Your task to perform on an android device: open app "Facebook Lite" (install if not already installed) and go to login screen Image 0: 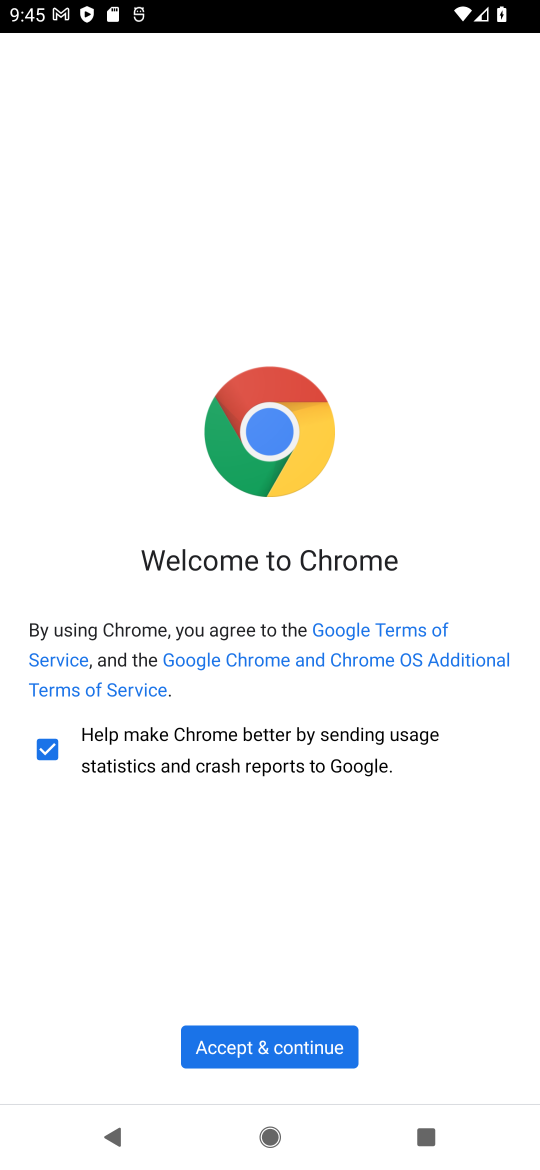
Step 0: press home button
Your task to perform on an android device: open app "Facebook Lite" (install if not already installed) and go to login screen Image 1: 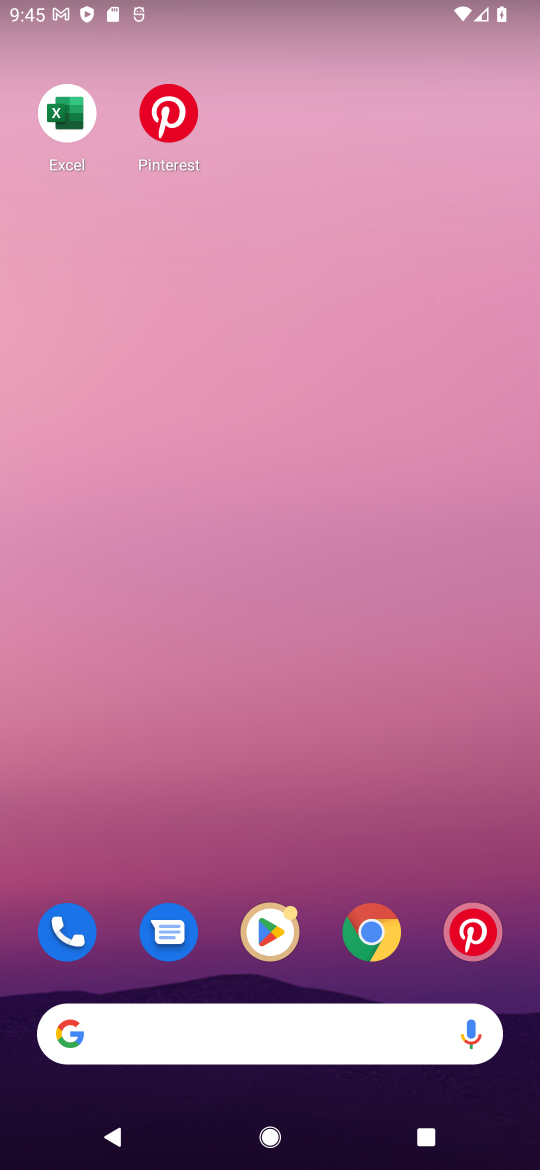
Step 1: click (272, 930)
Your task to perform on an android device: open app "Facebook Lite" (install if not already installed) and go to login screen Image 2: 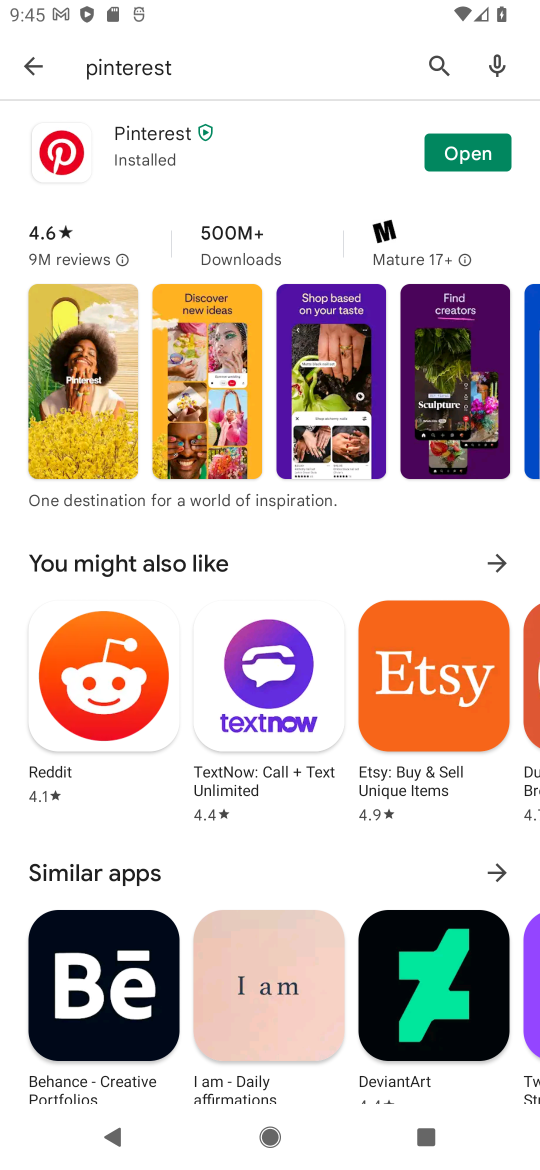
Step 2: click (429, 61)
Your task to perform on an android device: open app "Facebook Lite" (install if not already installed) and go to login screen Image 3: 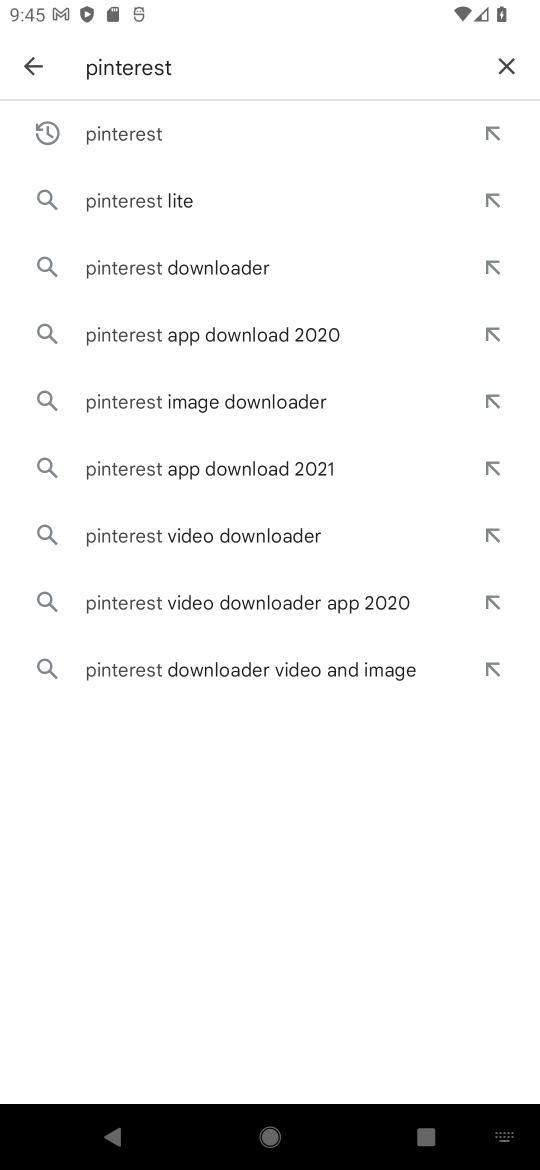
Step 3: click (508, 61)
Your task to perform on an android device: open app "Facebook Lite" (install if not already installed) and go to login screen Image 4: 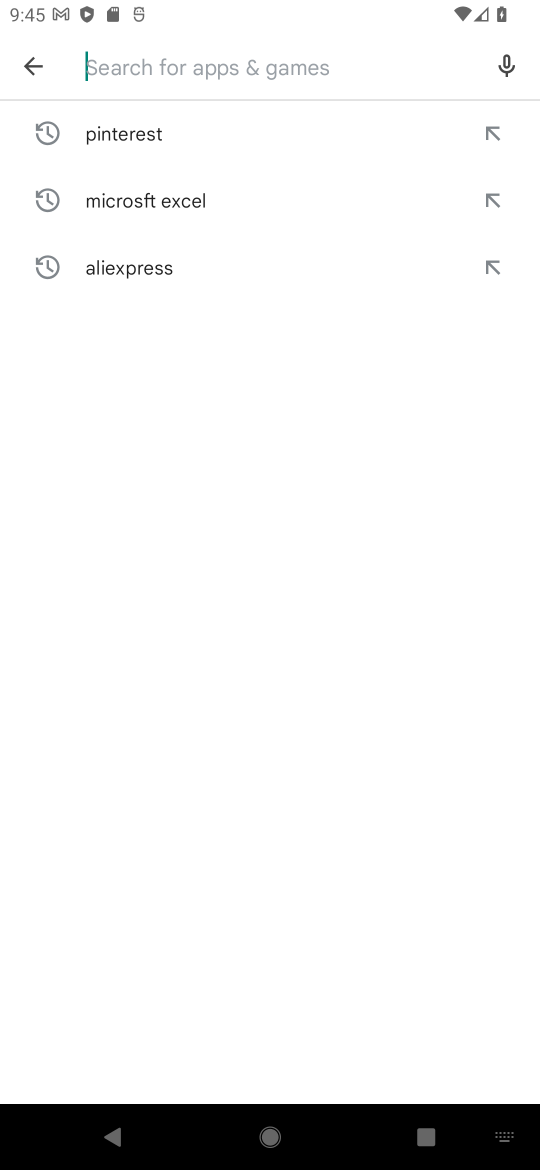
Step 4: type "facebook lite"
Your task to perform on an android device: open app "Facebook Lite" (install if not already installed) and go to login screen Image 5: 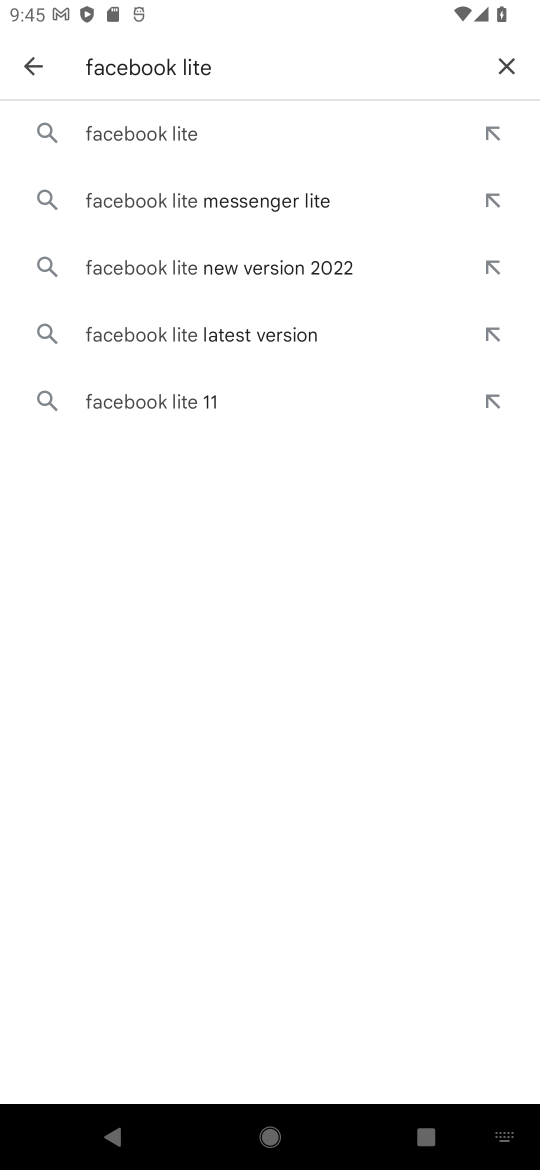
Step 5: click (193, 119)
Your task to perform on an android device: open app "Facebook Lite" (install if not already installed) and go to login screen Image 6: 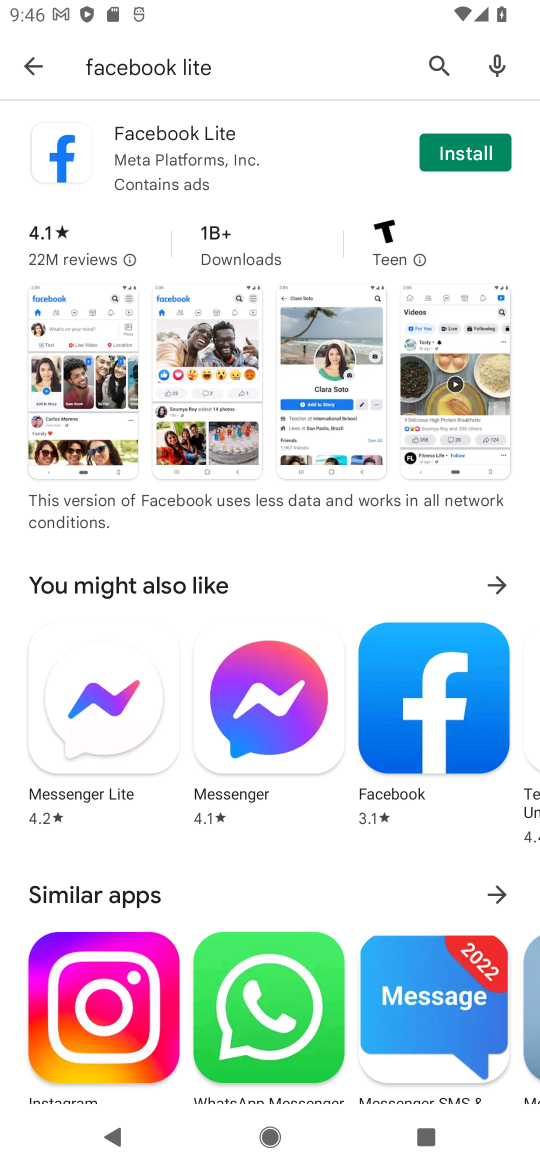
Step 6: click (463, 157)
Your task to perform on an android device: open app "Facebook Lite" (install if not already installed) and go to login screen Image 7: 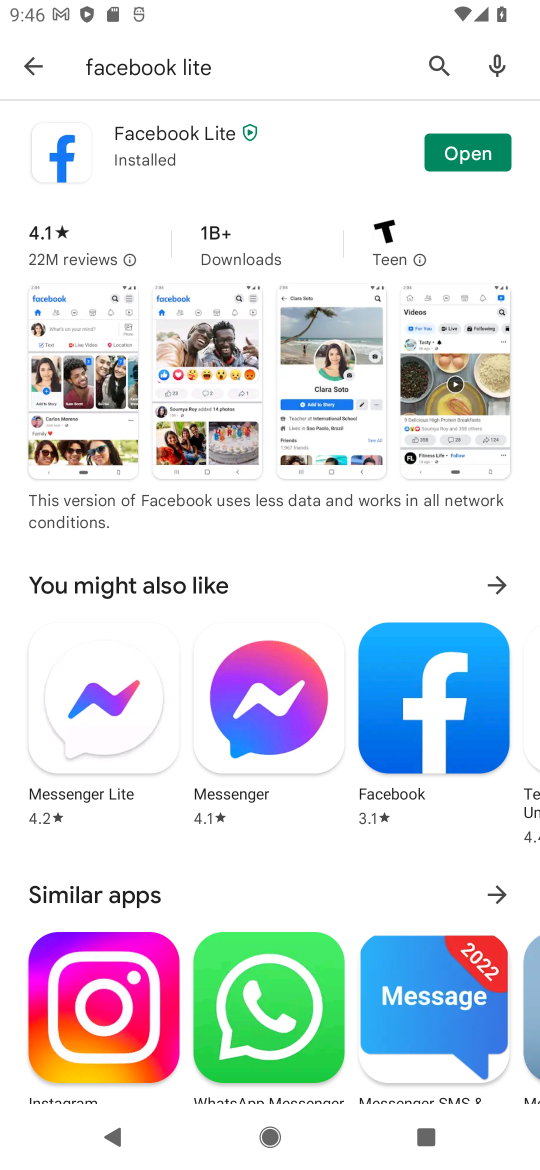
Step 7: click (454, 156)
Your task to perform on an android device: open app "Facebook Lite" (install if not already installed) and go to login screen Image 8: 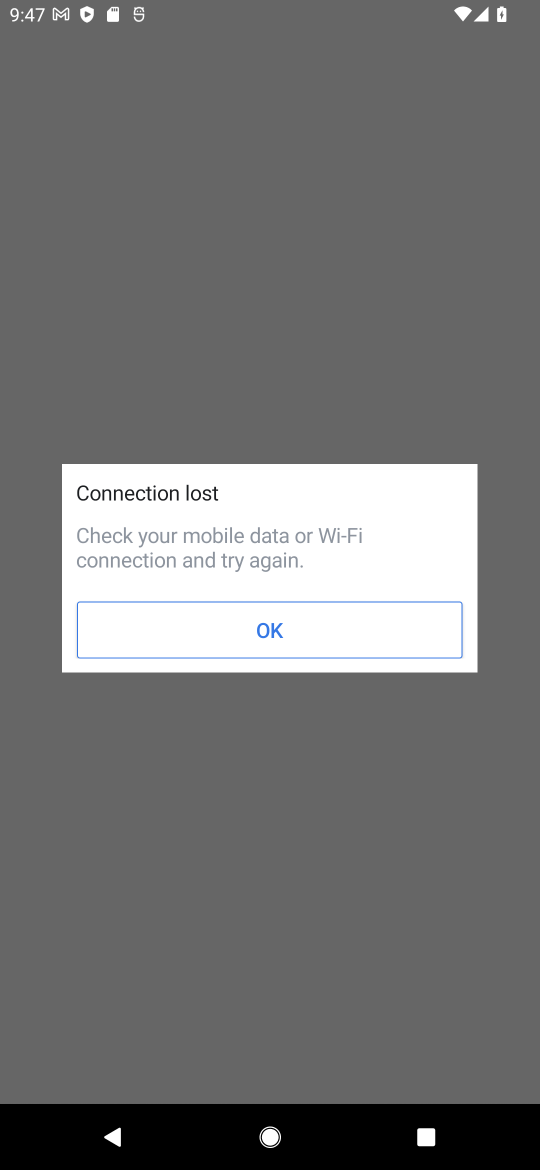
Step 8: task complete